Your task to perform on an android device: Check the news Image 0: 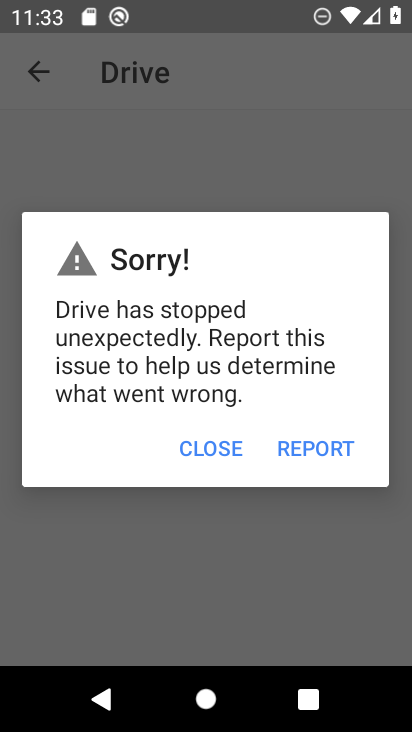
Step 0: press home button
Your task to perform on an android device: Check the news Image 1: 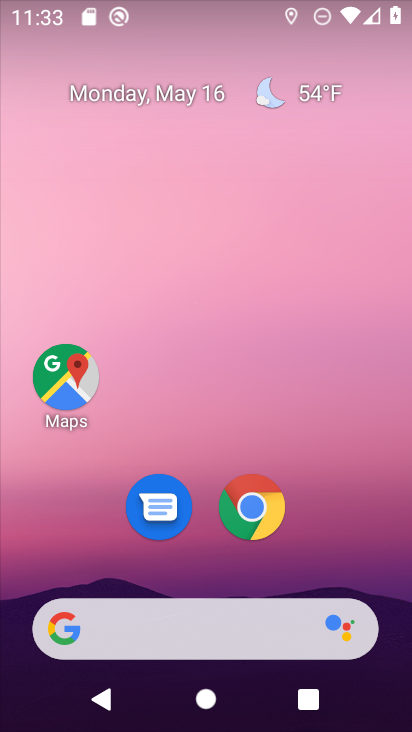
Step 1: drag from (346, 552) to (274, 136)
Your task to perform on an android device: Check the news Image 2: 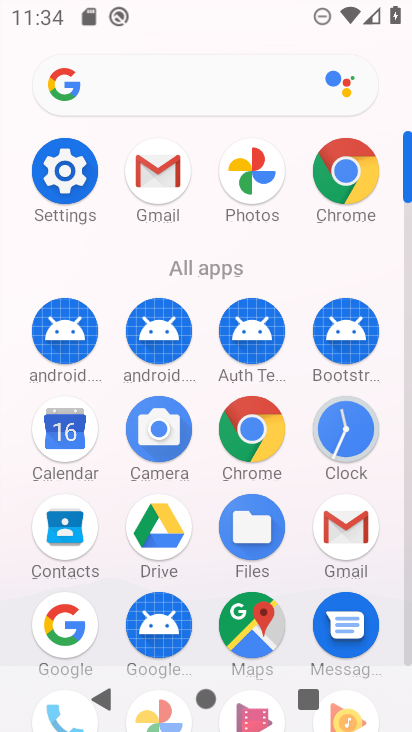
Step 2: click (350, 165)
Your task to perform on an android device: Check the news Image 3: 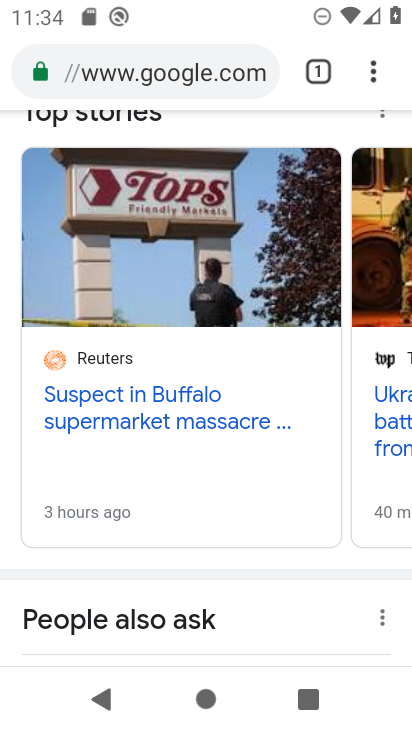
Step 3: click (170, 63)
Your task to perform on an android device: Check the news Image 4: 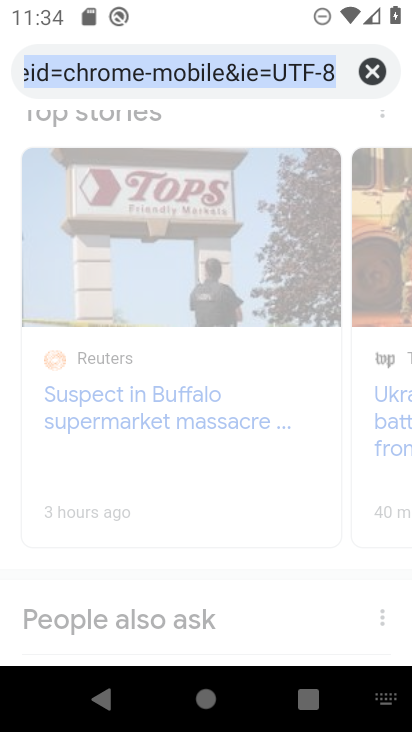
Step 4: type "news"
Your task to perform on an android device: Check the news Image 5: 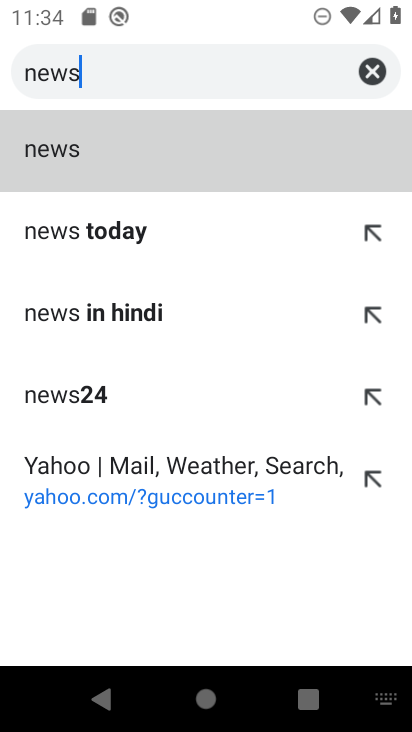
Step 5: click (196, 156)
Your task to perform on an android device: Check the news Image 6: 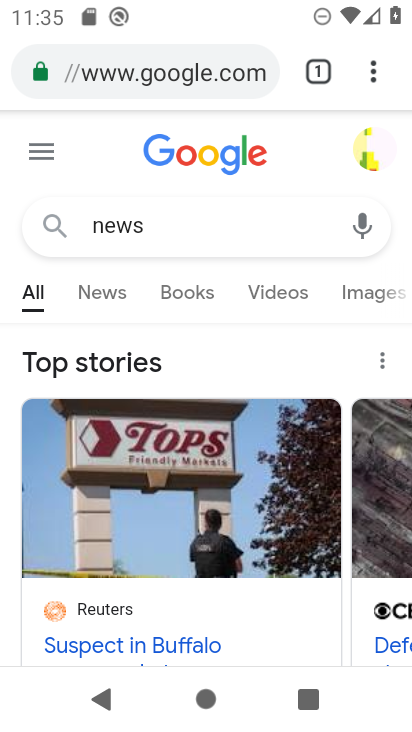
Step 6: task complete